Your task to perform on an android device: What's the weather going to be tomorrow? Image 0: 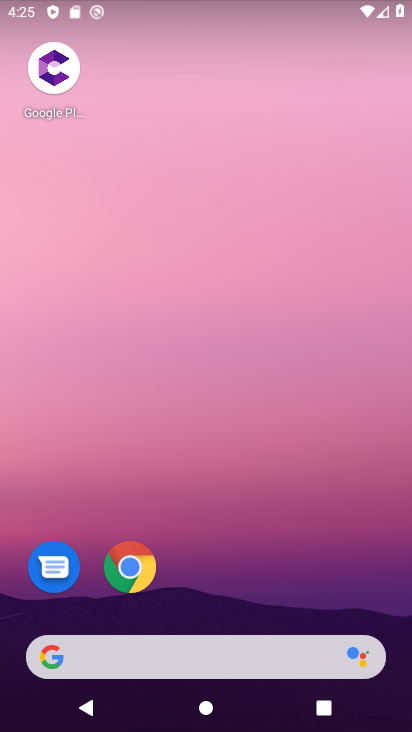
Step 0: click (164, 658)
Your task to perform on an android device: What's the weather going to be tomorrow? Image 1: 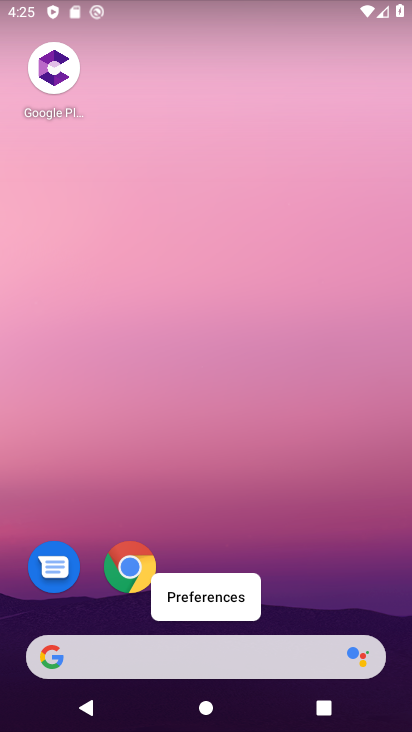
Step 1: click (174, 653)
Your task to perform on an android device: What's the weather going to be tomorrow? Image 2: 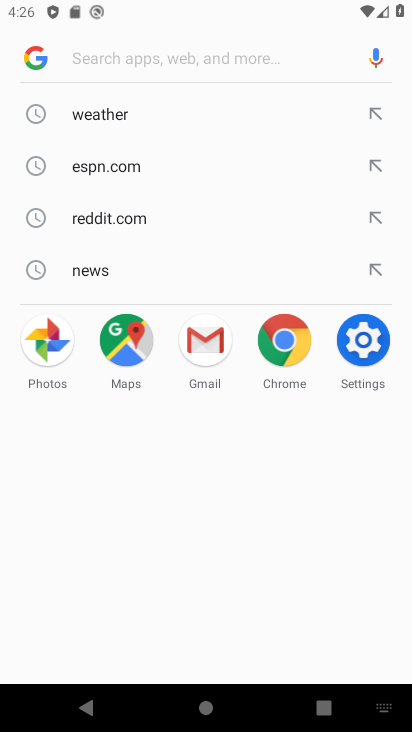
Step 2: click (104, 113)
Your task to perform on an android device: What's the weather going to be tomorrow? Image 3: 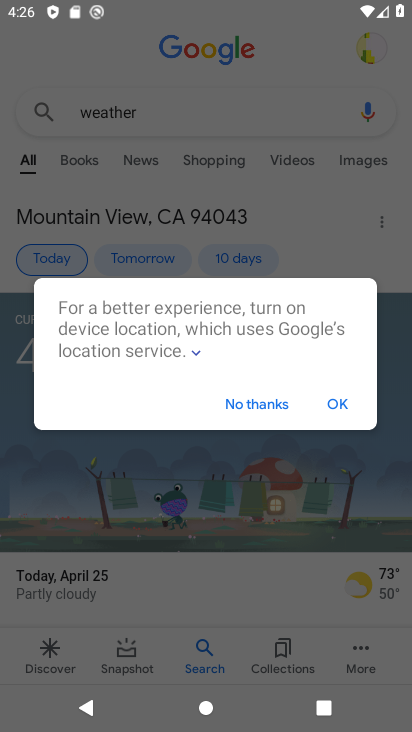
Step 3: click (273, 404)
Your task to perform on an android device: What's the weather going to be tomorrow? Image 4: 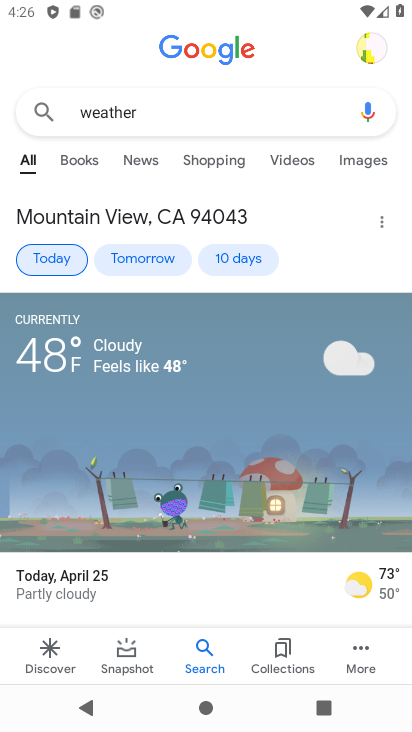
Step 4: click (140, 256)
Your task to perform on an android device: What's the weather going to be tomorrow? Image 5: 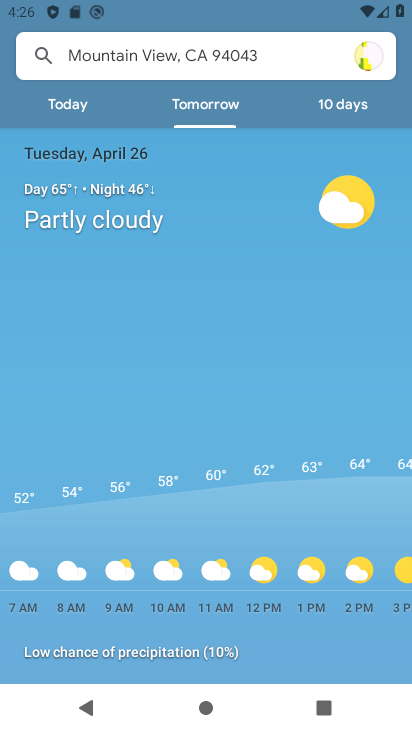
Step 5: task complete